Your task to perform on an android device: Show me the alarms in the clock app Image 0: 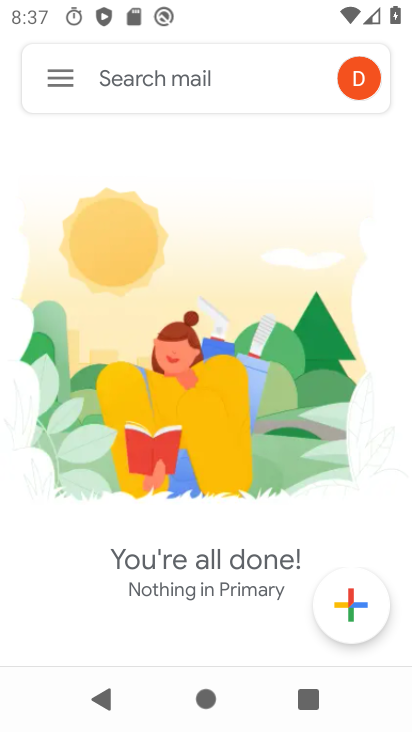
Step 0: press home button
Your task to perform on an android device: Show me the alarms in the clock app Image 1: 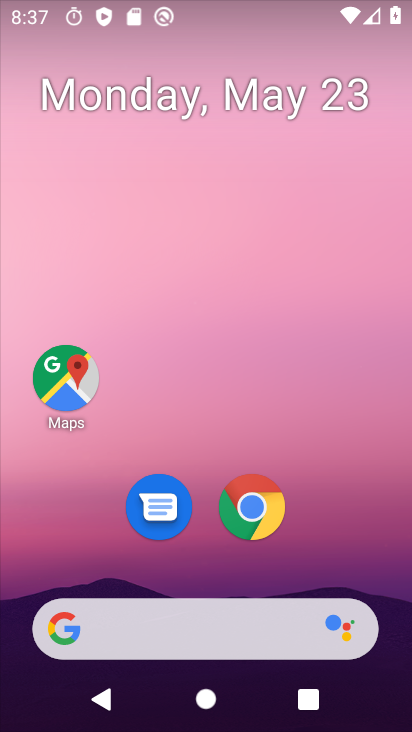
Step 1: drag from (351, 519) to (284, 29)
Your task to perform on an android device: Show me the alarms in the clock app Image 2: 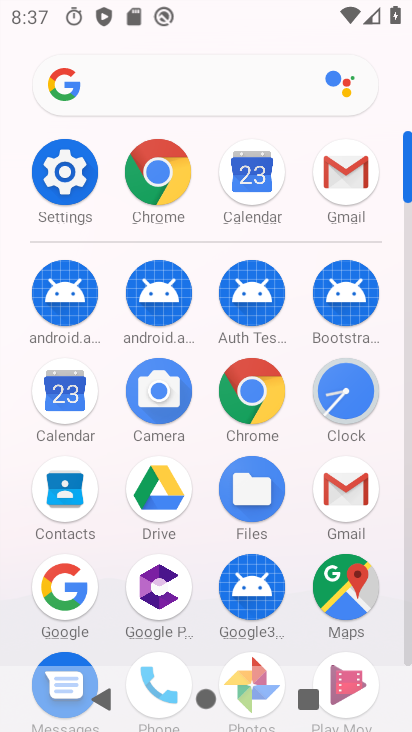
Step 2: click (362, 396)
Your task to perform on an android device: Show me the alarms in the clock app Image 3: 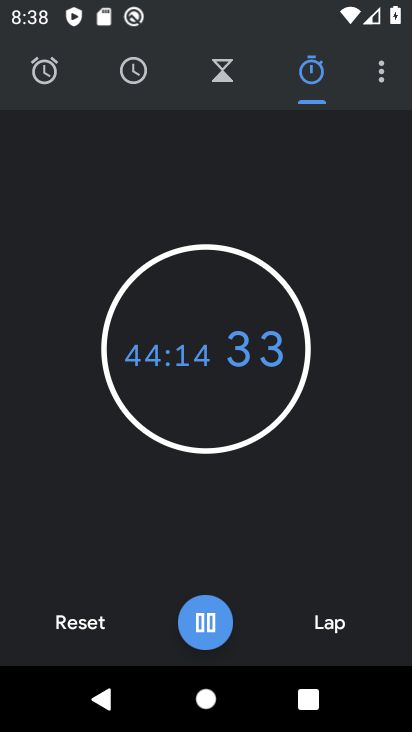
Step 3: click (46, 83)
Your task to perform on an android device: Show me the alarms in the clock app Image 4: 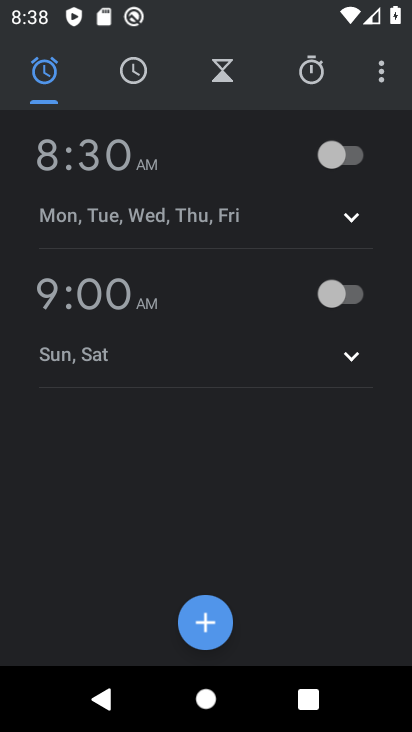
Step 4: click (96, 172)
Your task to perform on an android device: Show me the alarms in the clock app Image 5: 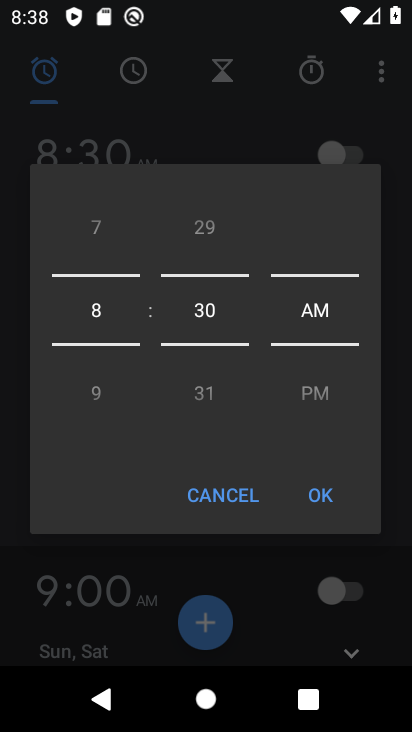
Step 5: task complete